Your task to perform on an android device: change keyboard looks Image 0: 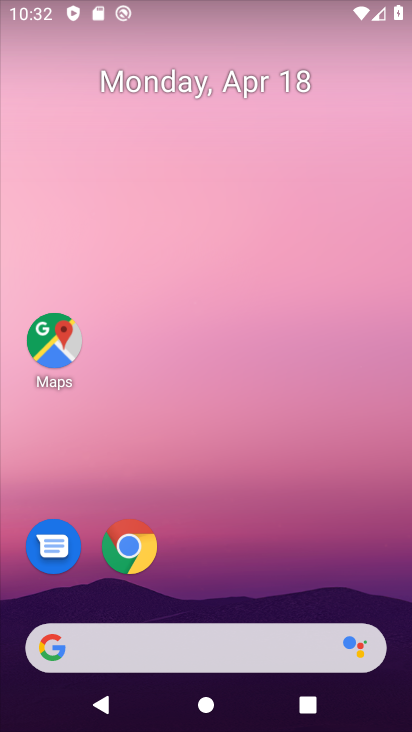
Step 0: click (192, 221)
Your task to perform on an android device: change keyboard looks Image 1: 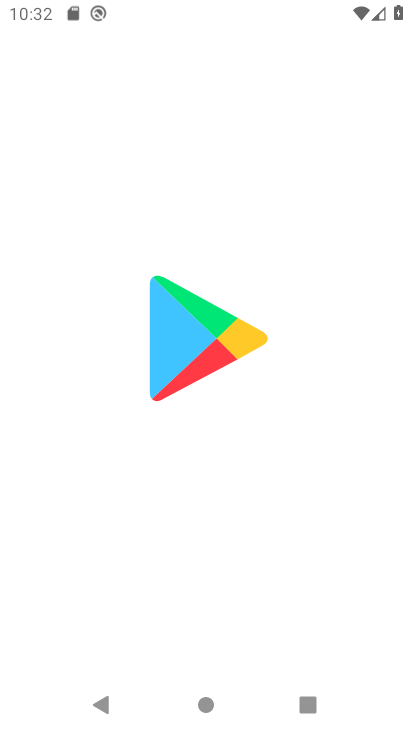
Step 1: drag from (229, 540) to (183, 110)
Your task to perform on an android device: change keyboard looks Image 2: 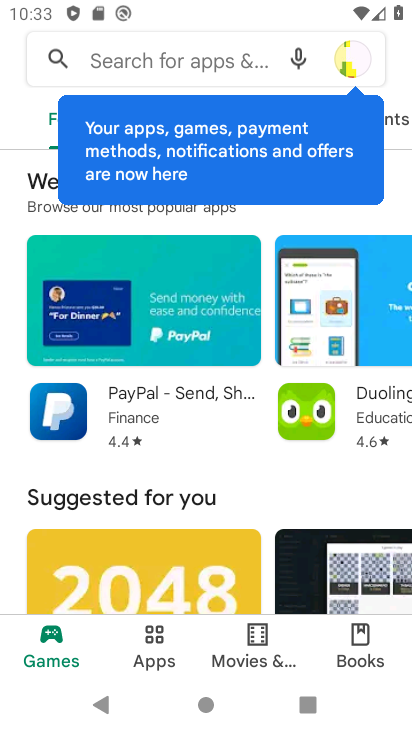
Step 2: press home button
Your task to perform on an android device: change keyboard looks Image 3: 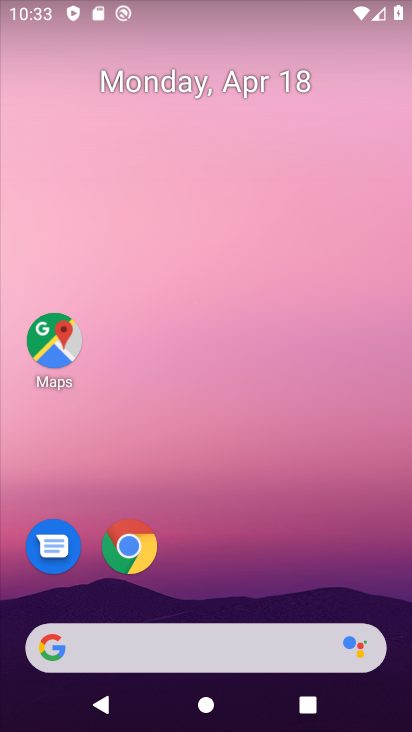
Step 3: drag from (250, 599) to (140, 208)
Your task to perform on an android device: change keyboard looks Image 4: 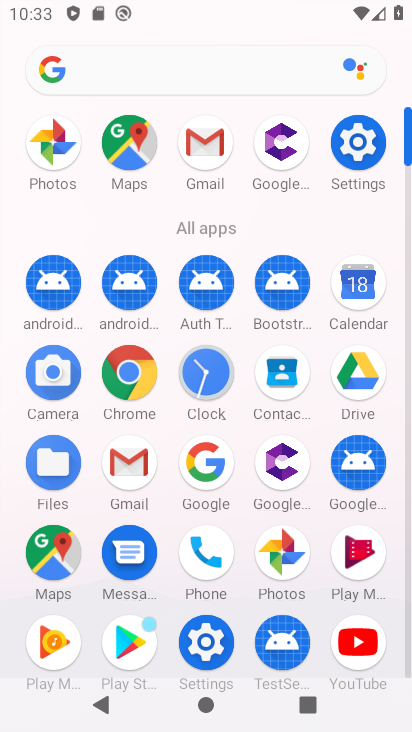
Step 4: click (360, 156)
Your task to perform on an android device: change keyboard looks Image 5: 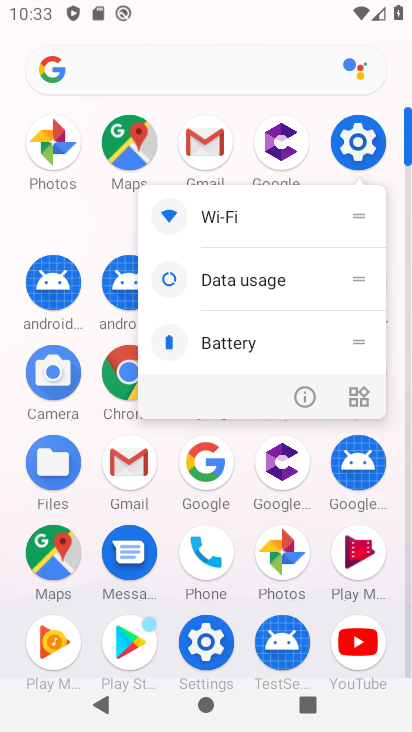
Step 5: click (356, 135)
Your task to perform on an android device: change keyboard looks Image 6: 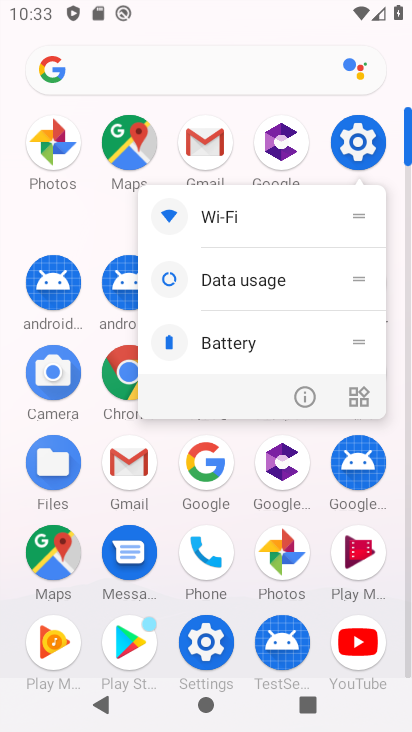
Step 6: click (356, 134)
Your task to perform on an android device: change keyboard looks Image 7: 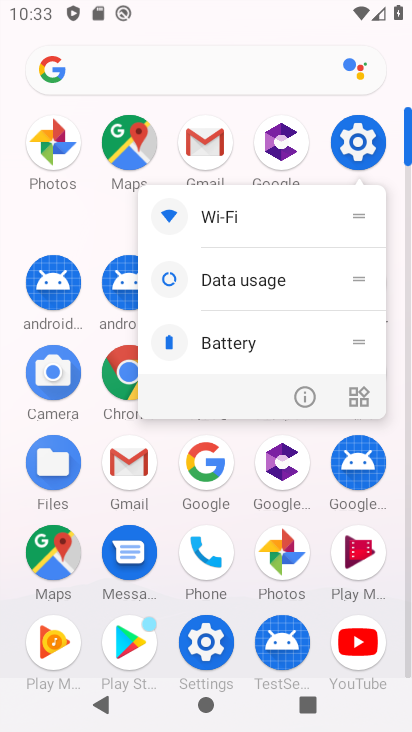
Step 7: click (355, 148)
Your task to perform on an android device: change keyboard looks Image 8: 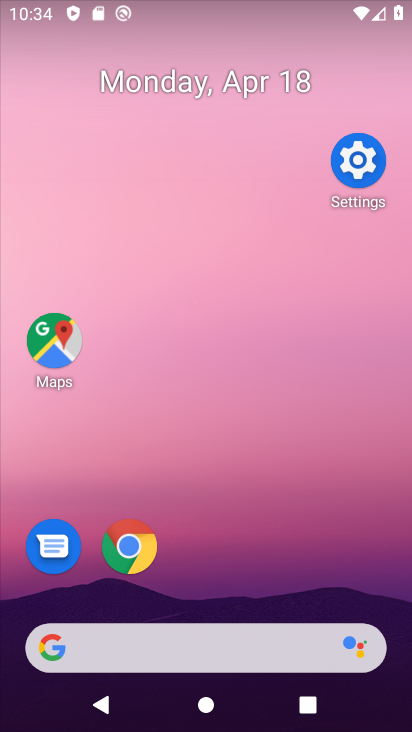
Step 8: click (346, 163)
Your task to perform on an android device: change keyboard looks Image 9: 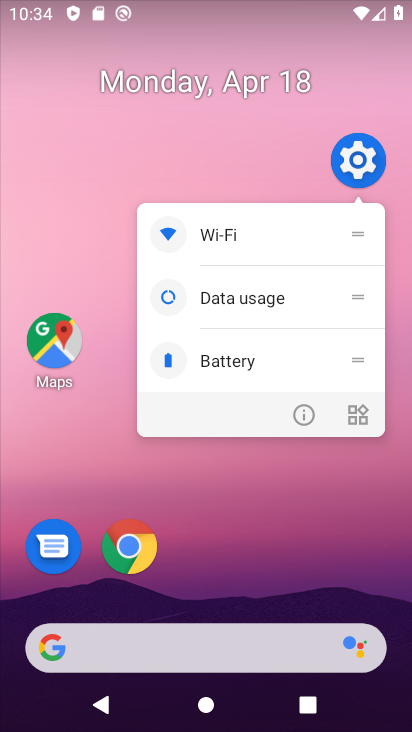
Step 9: click (353, 168)
Your task to perform on an android device: change keyboard looks Image 10: 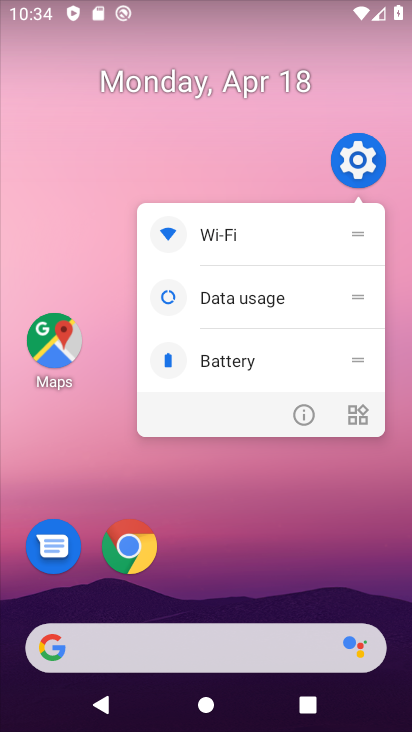
Step 10: click (289, 133)
Your task to perform on an android device: change keyboard looks Image 11: 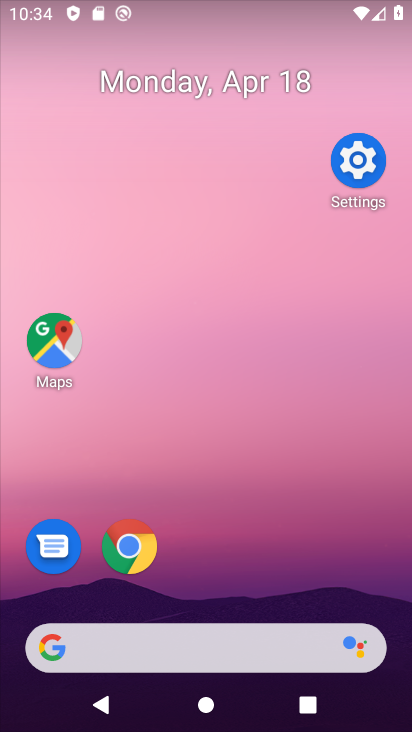
Step 11: click (359, 153)
Your task to perform on an android device: change keyboard looks Image 12: 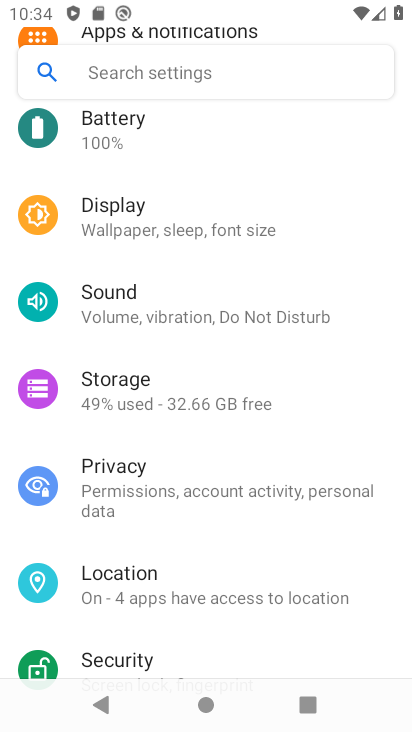
Step 12: drag from (223, 528) to (194, 108)
Your task to perform on an android device: change keyboard looks Image 13: 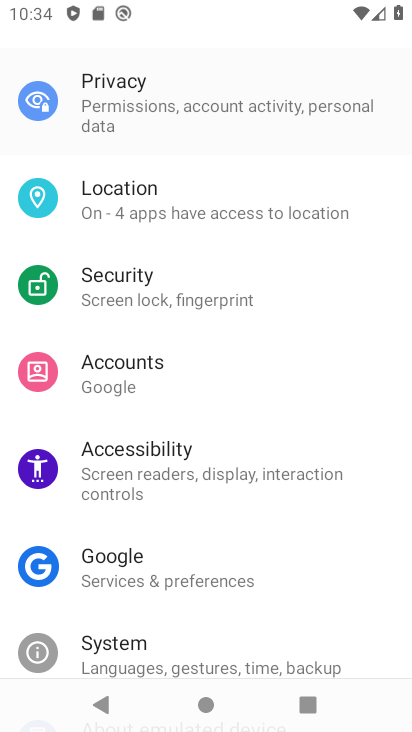
Step 13: drag from (178, 463) to (174, 238)
Your task to perform on an android device: change keyboard looks Image 14: 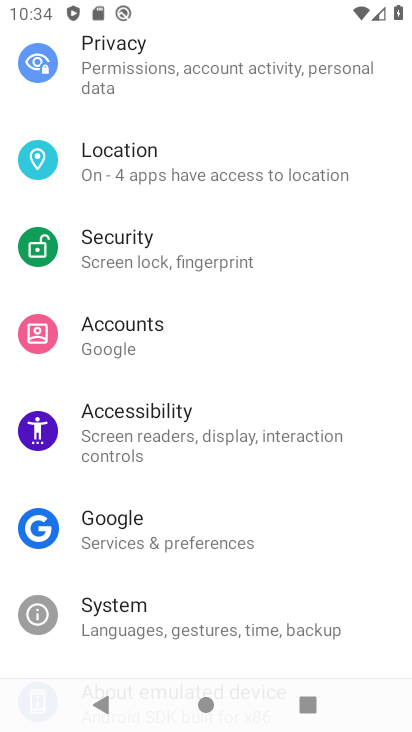
Step 14: drag from (198, 514) to (219, 254)
Your task to perform on an android device: change keyboard looks Image 15: 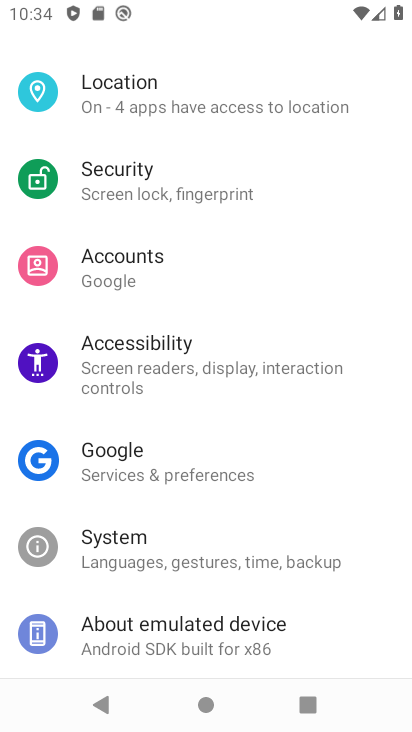
Step 15: click (124, 551)
Your task to perform on an android device: change keyboard looks Image 16: 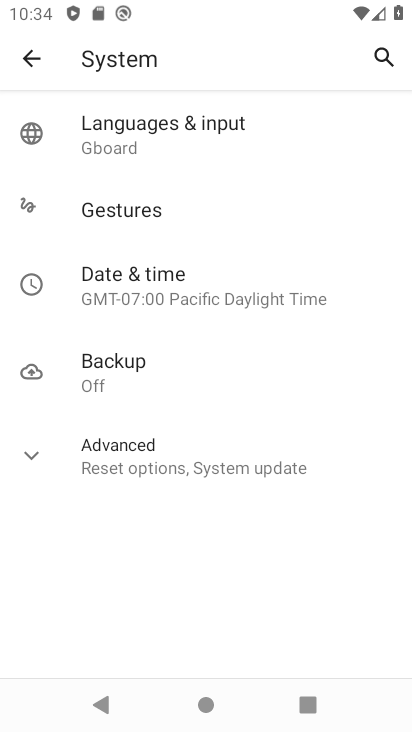
Step 16: click (106, 136)
Your task to perform on an android device: change keyboard looks Image 17: 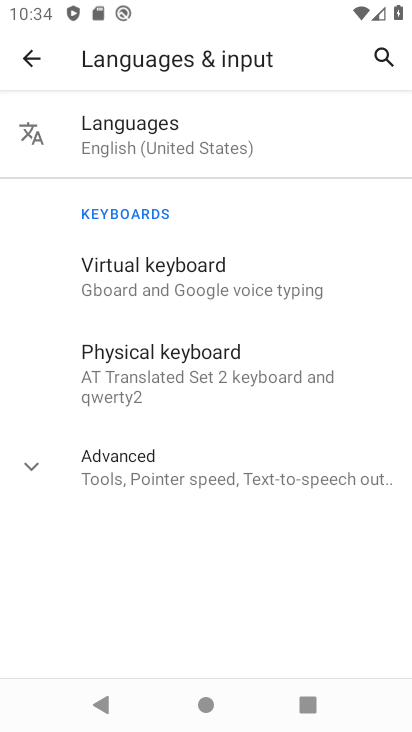
Step 17: click (134, 278)
Your task to perform on an android device: change keyboard looks Image 18: 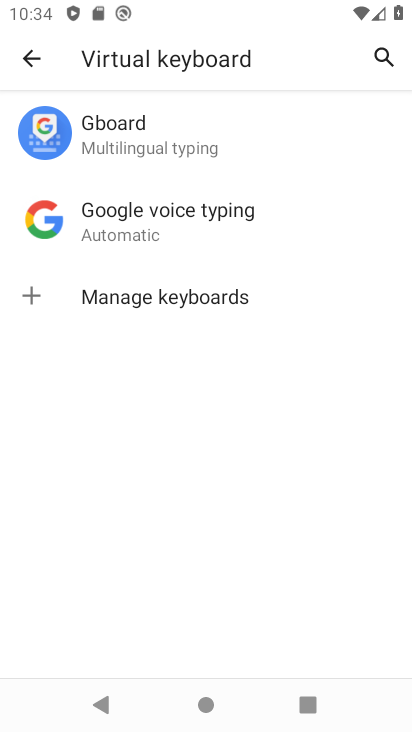
Step 18: click (98, 143)
Your task to perform on an android device: change keyboard looks Image 19: 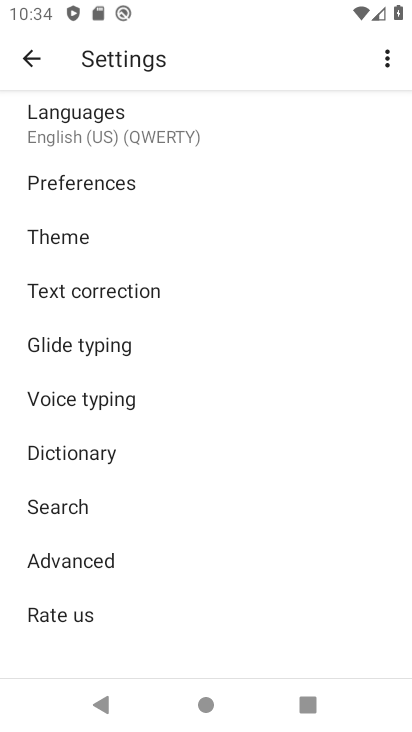
Step 19: click (60, 229)
Your task to perform on an android device: change keyboard looks Image 20: 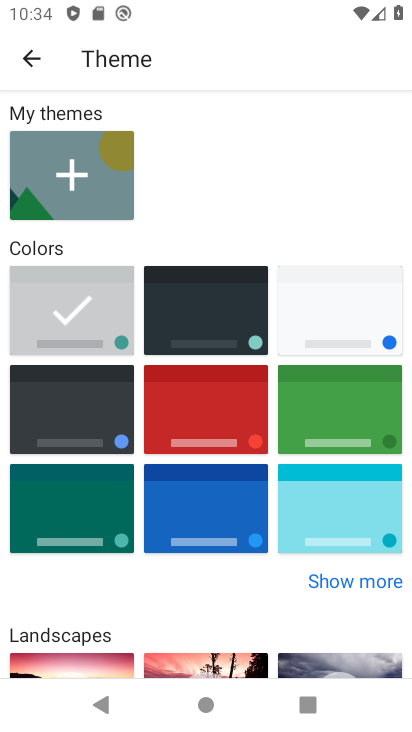
Step 20: drag from (192, 494) to (210, 160)
Your task to perform on an android device: change keyboard looks Image 21: 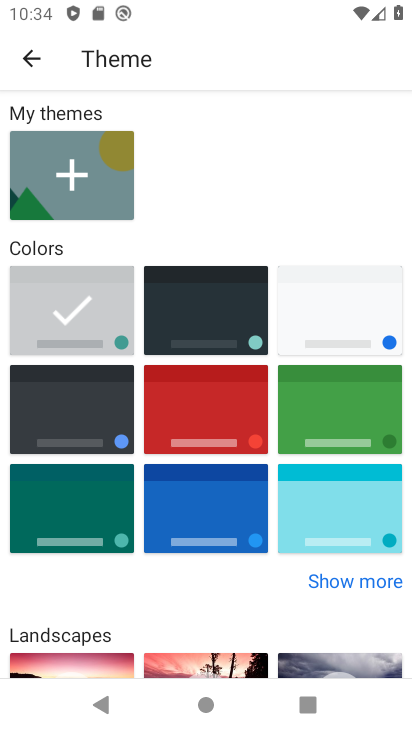
Step 21: drag from (213, 581) to (231, 251)
Your task to perform on an android device: change keyboard looks Image 22: 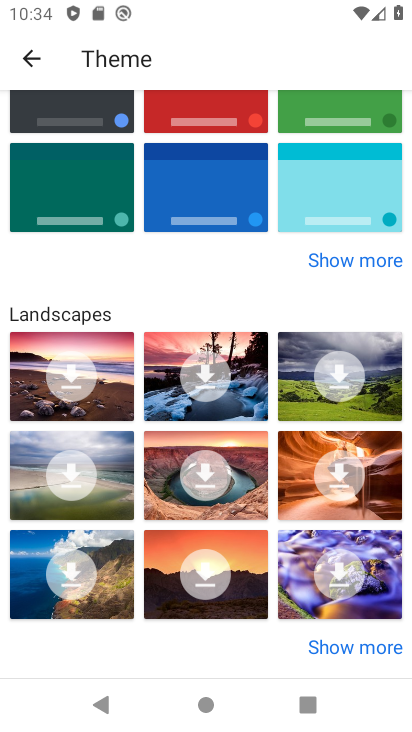
Step 22: drag from (272, 468) to (235, 137)
Your task to perform on an android device: change keyboard looks Image 23: 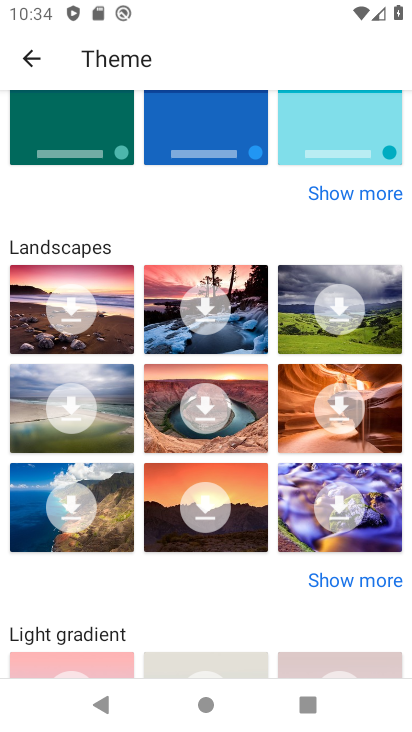
Step 23: click (82, 135)
Your task to perform on an android device: change keyboard looks Image 24: 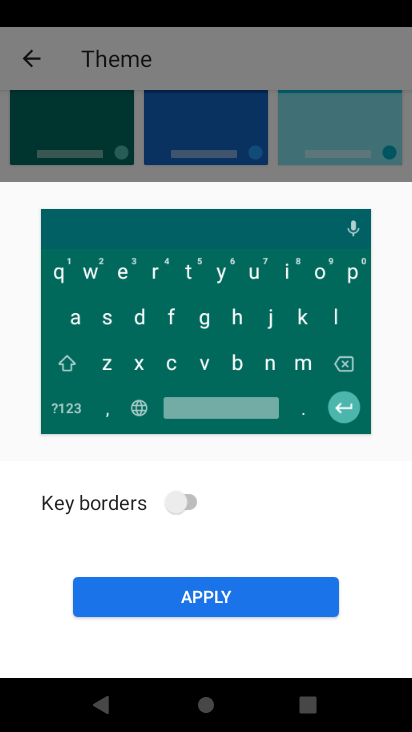
Step 24: click (231, 592)
Your task to perform on an android device: change keyboard looks Image 25: 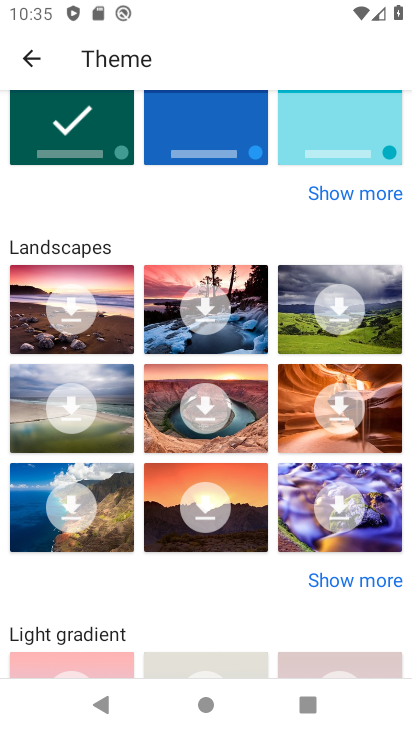
Step 25: task complete